Your task to perform on an android device: open chrome privacy settings Image 0: 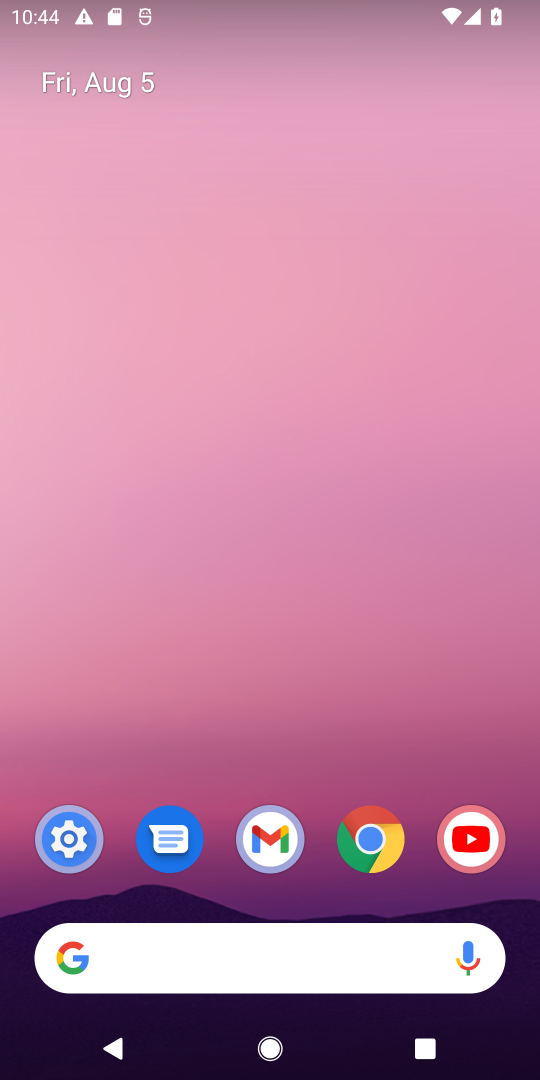
Step 0: press home button
Your task to perform on an android device: open chrome privacy settings Image 1: 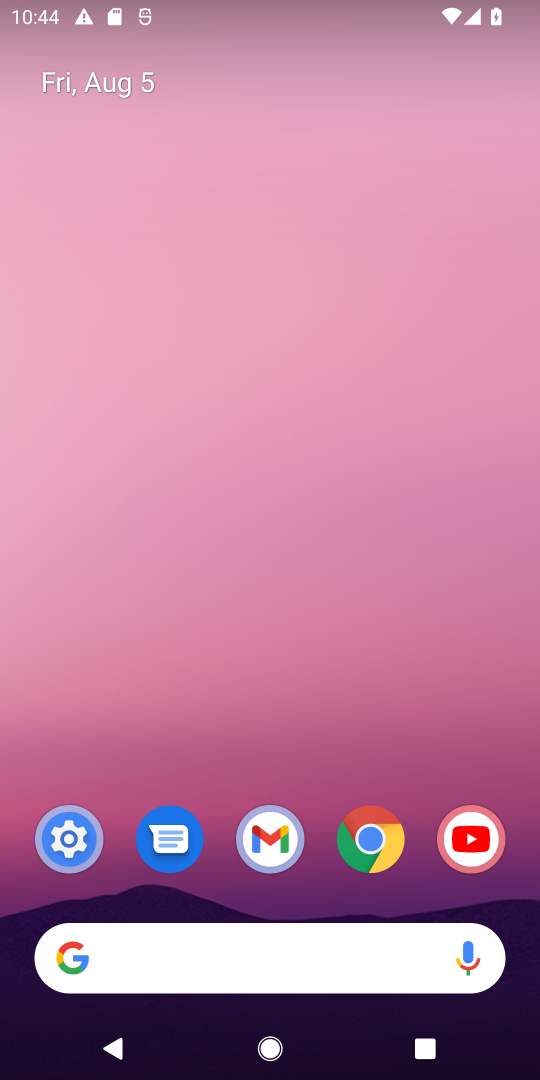
Step 1: drag from (322, 898) to (286, 37)
Your task to perform on an android device: open chrome privacy settings Image 2: 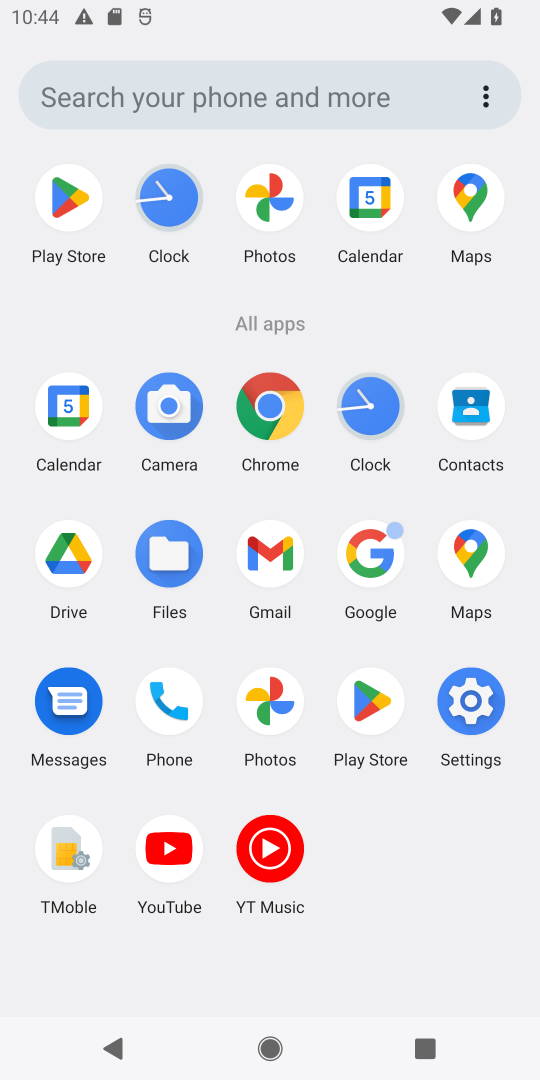
Step 2: click (273, 400)
Your task to perform on an android device: open chrome privacy settings Image 3: 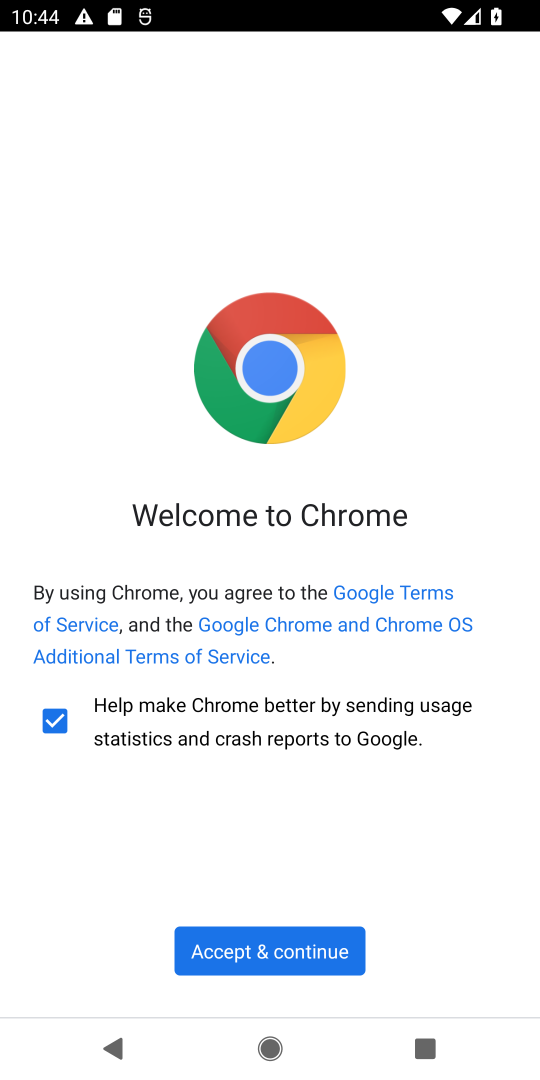
Step 3: click (276, 944)
Your task to perform on an android device: open chrome privacy settings Image 4: 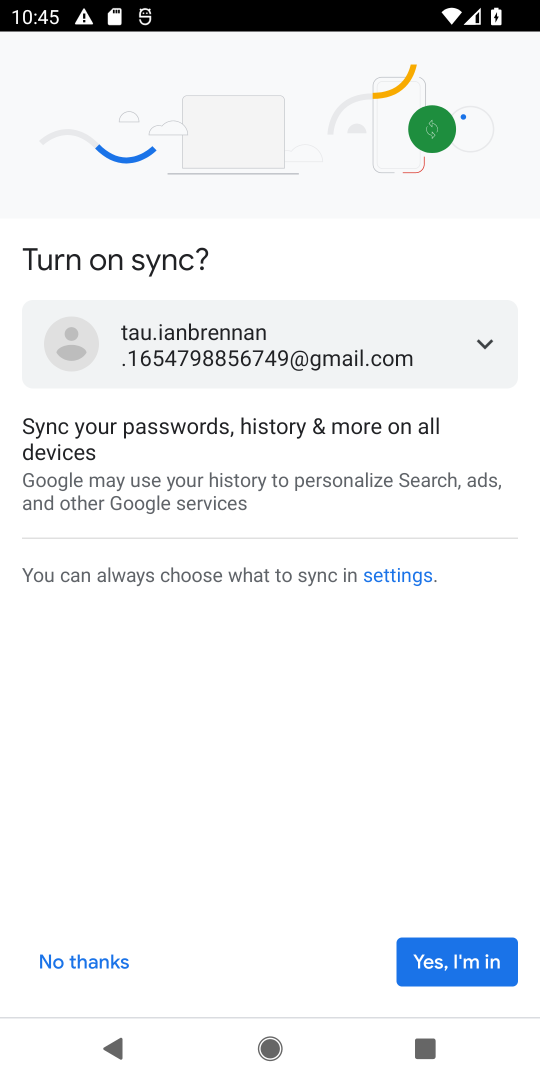
Step 4: click (460, 956)
Your task to perform on an android device: open chrome privacy settings Image 5: 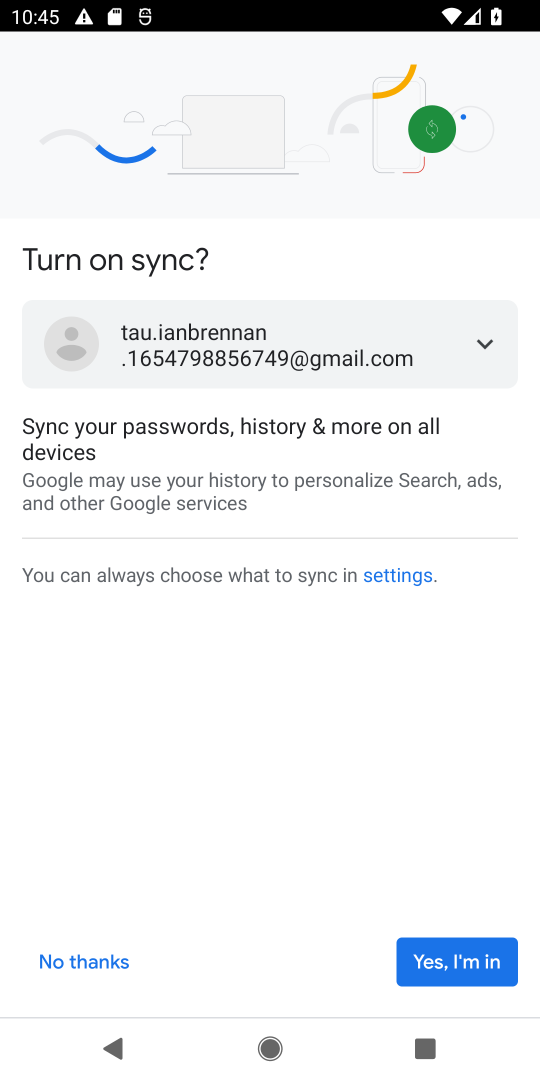
Step 5: click (461, 962)
Your task to perform on an android device: open chrome privacy settings Image 6: 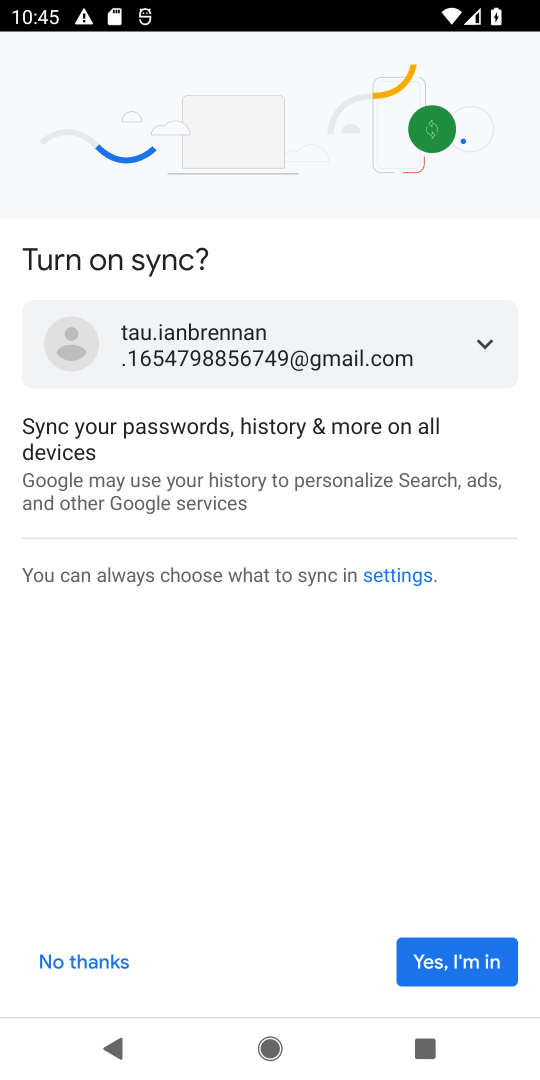
Step 6: click (488, 960)
Your task to perform on an android device: open chrome privacy settings Image 7: 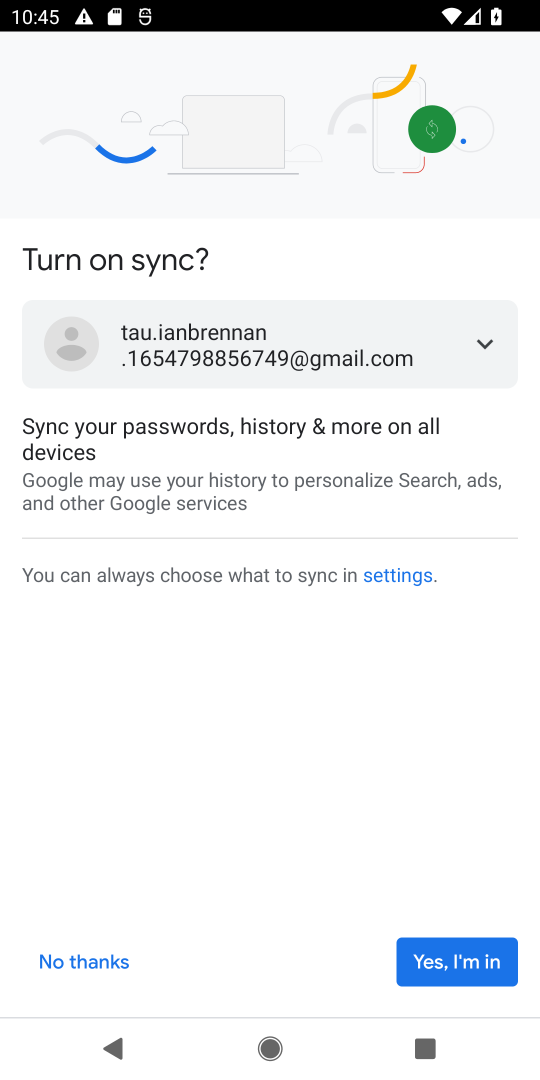
Step 7: click (455, 965)
Your task to perform on an android device: open chrome privacy settings Image 8: 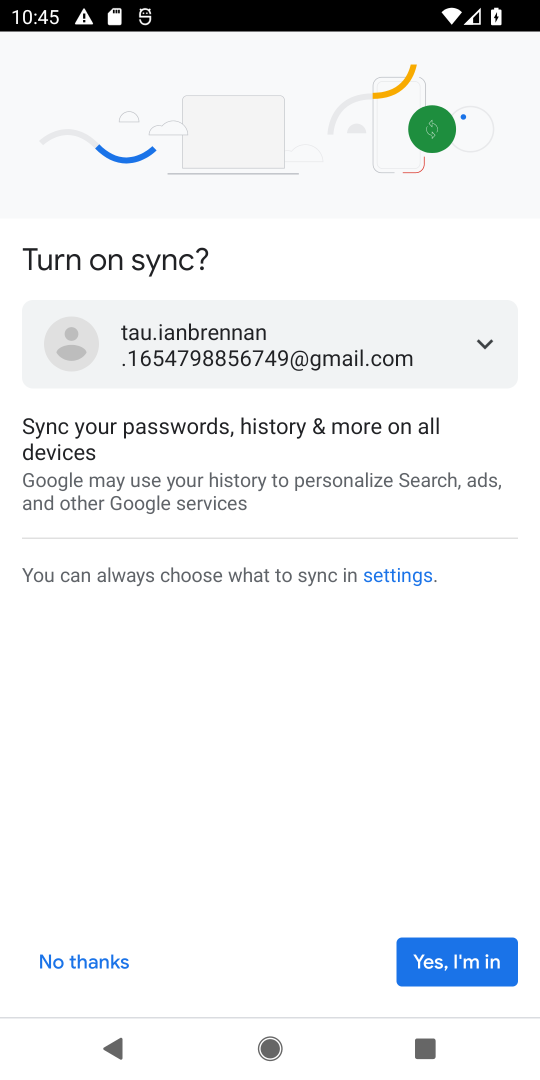
Step 8: click (460, 962)
Your task to perform on an android device: open chrome privacy settings Image 9: 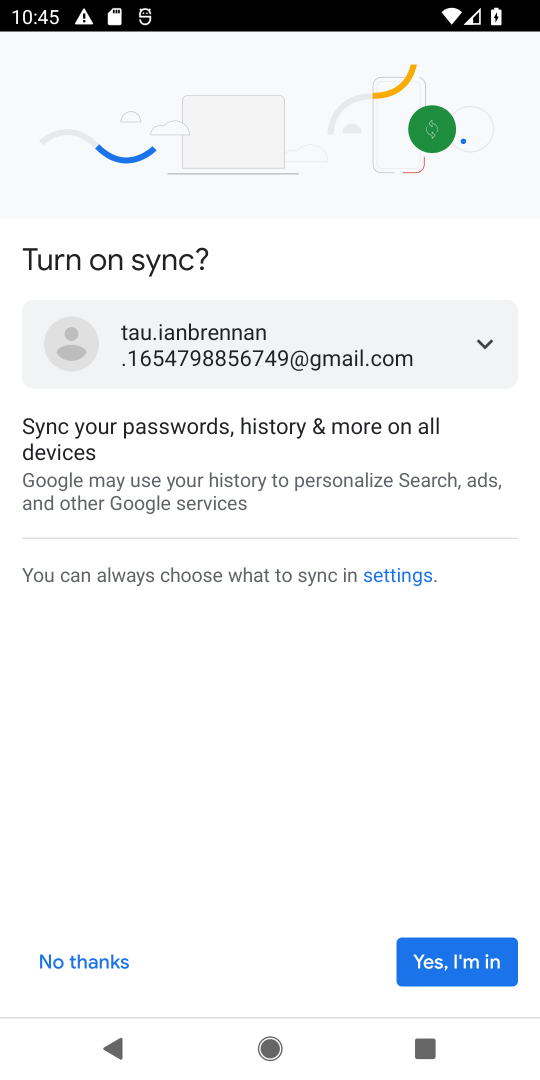
Step 9: click (455, 964)
Your task to perform on an android device: open chrome privacy settings Image 10: 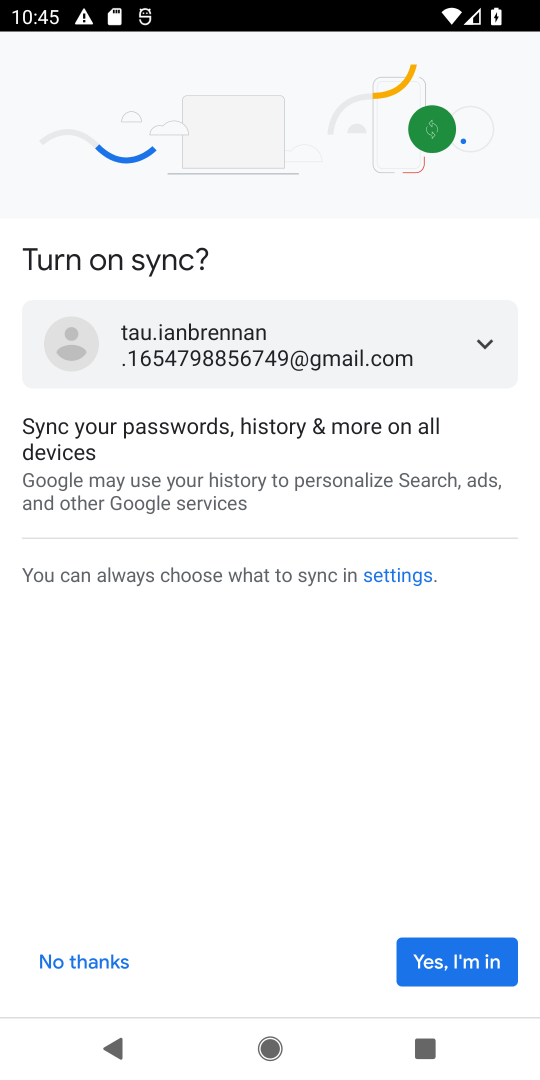
Step 10: click (465, 945)
Your task to perform on an android device: open chrome privacy settings Image 11: 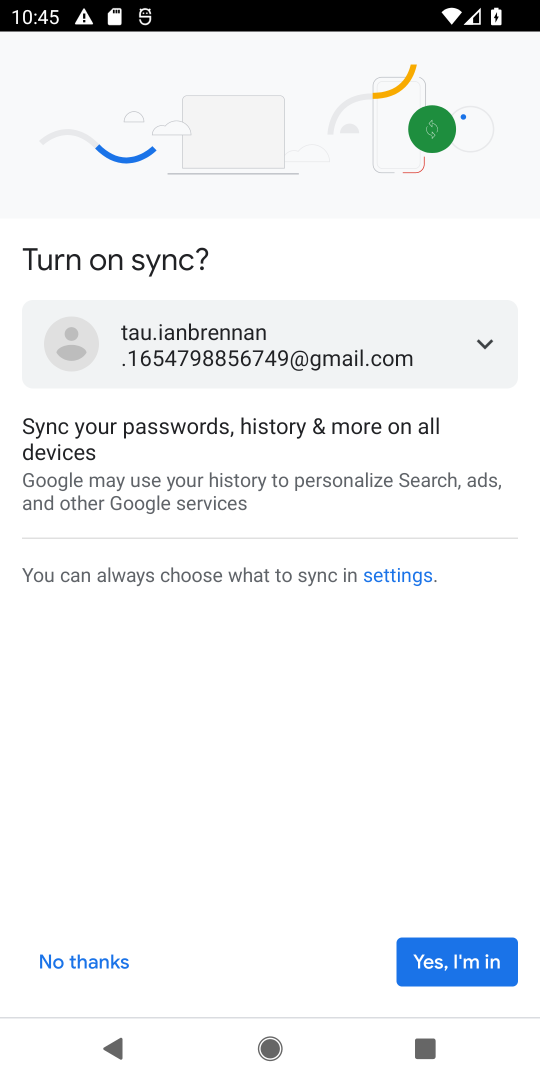
Step 11: click (455, 961)
Your task to perform on an android device: open chrome privacy settings Image 12: 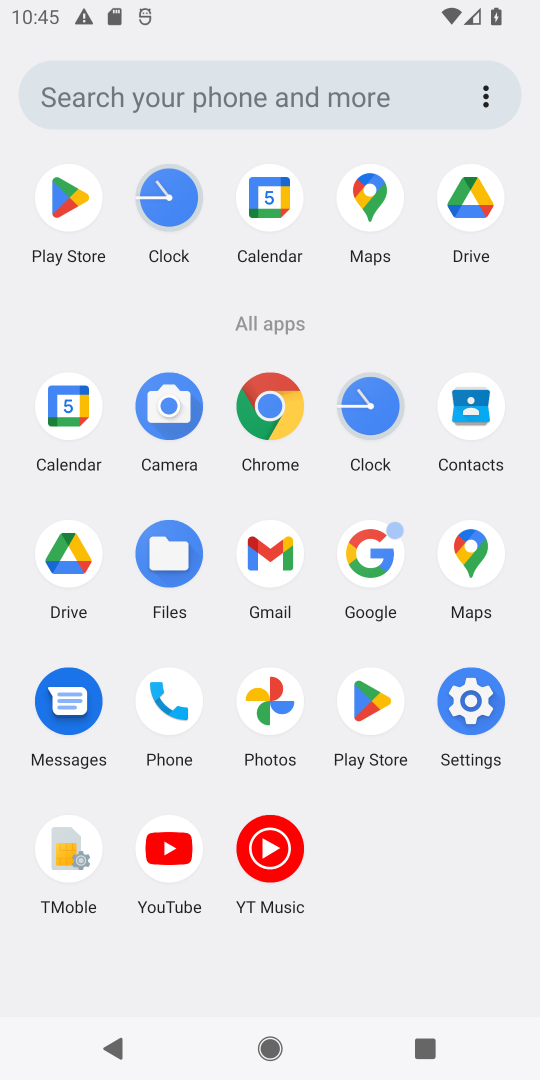
Step 12: click (264, 397)
Your task to perform on an android device: open chrome privacy settings Image 13: 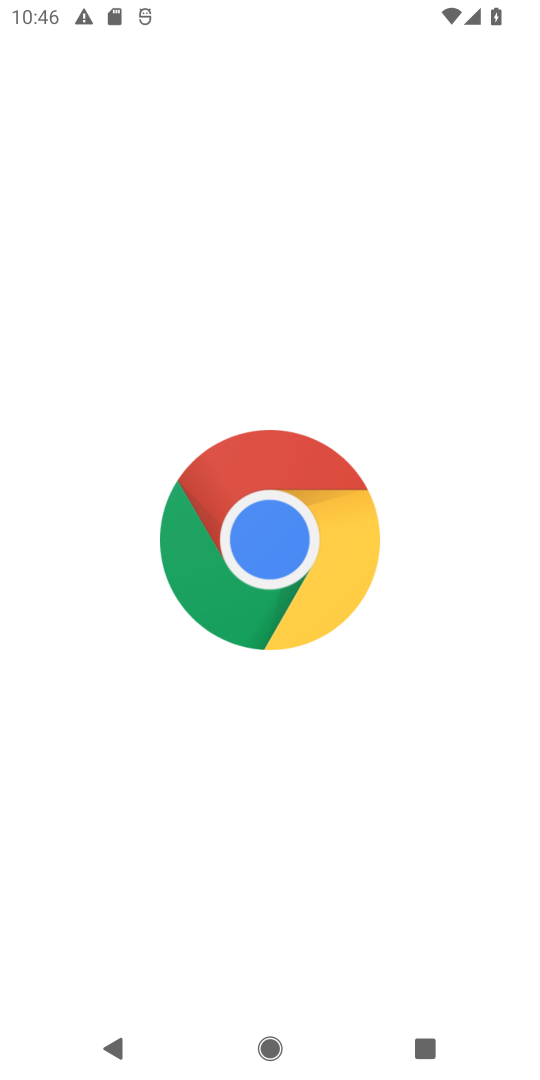
Step 13: task complete